Your task to perform on an android device: turn vacation reply on in the gmail app Image 0: 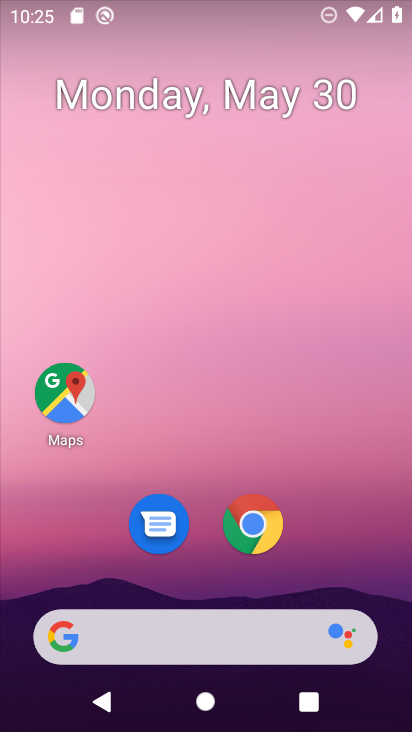
Step 0: drag from (239, 457) to (232, 4)
Your task to perform on an android device: turn vacation reply on in the gmail app Image 1: 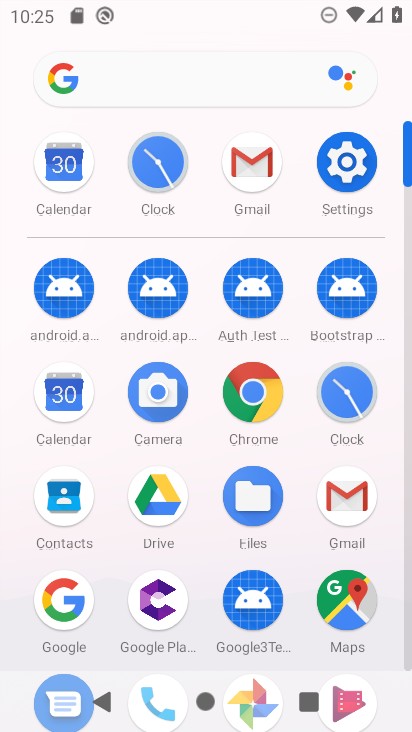
Step 1: click (250, 172)
Your task to perform on an android device: turn vacation reply on in the gmail app Image 2: 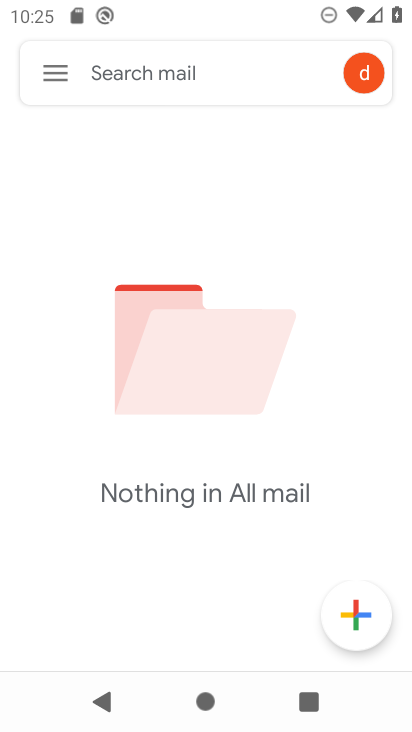
Step 2: click (63, 70)
Your task to perform on an android device: turn vacation reply on in the gmail app Image 3: 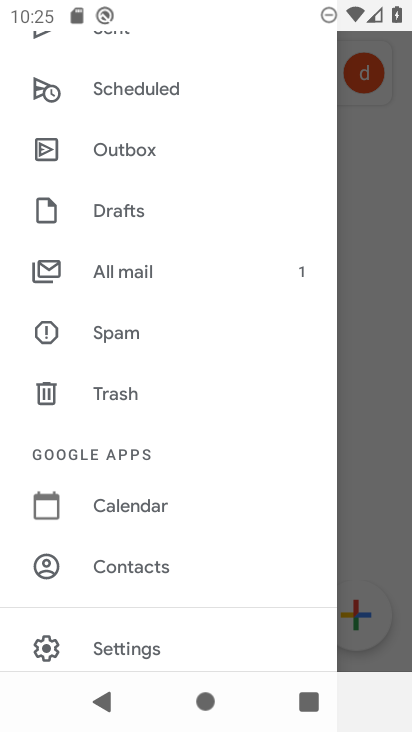
Step 3: click (171, 648)
Your task to perform on an android device: turn vacation reply on in the gmail app Image 4: 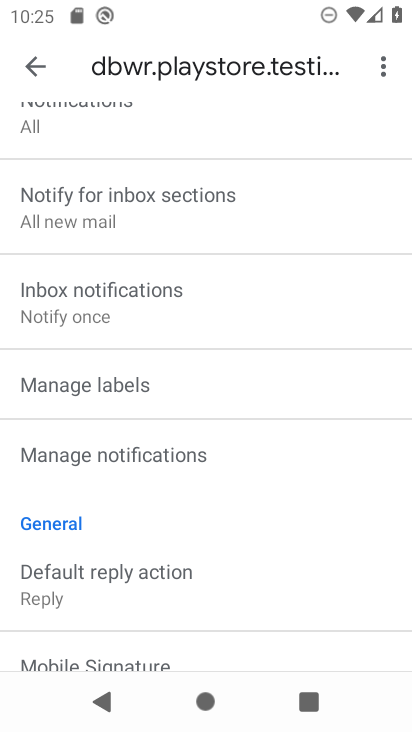
Step 4: drag from (263, 521) to (271, 8)
Your task to perform on an android device: turn vacation reply on in the gmail app Image 5: 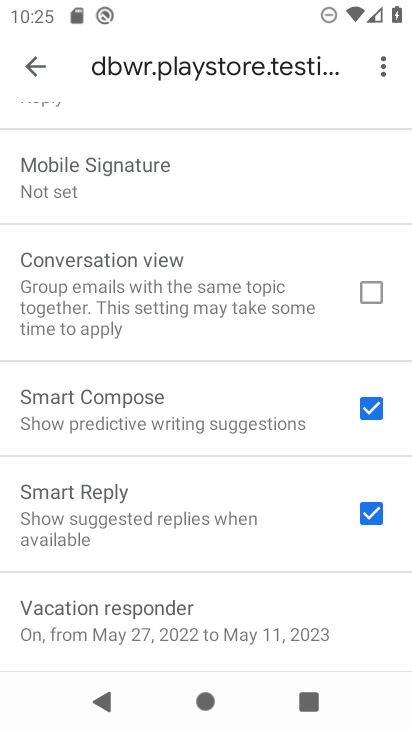
Step 5: click (229, 619)
Your task to perform on an android device: turn vacation reply on in the gmail app Image 6: 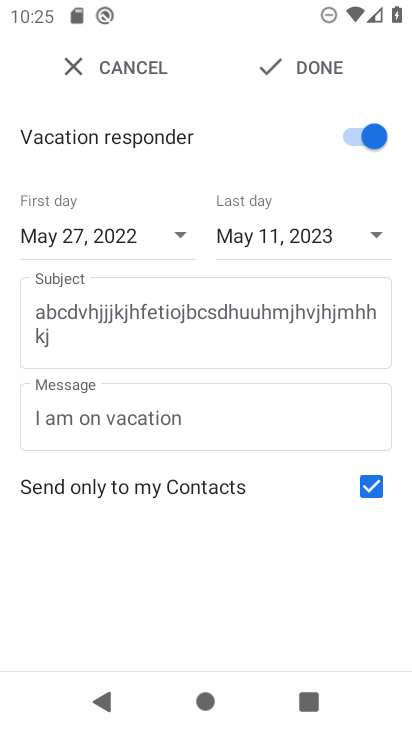
Step 6: task complete